Your task to perform on an android device: Empty the shopping cart on walmart. Search for "usb-c to usb-a" on walmart, select the first entry, and add it to the cart. Image 0: 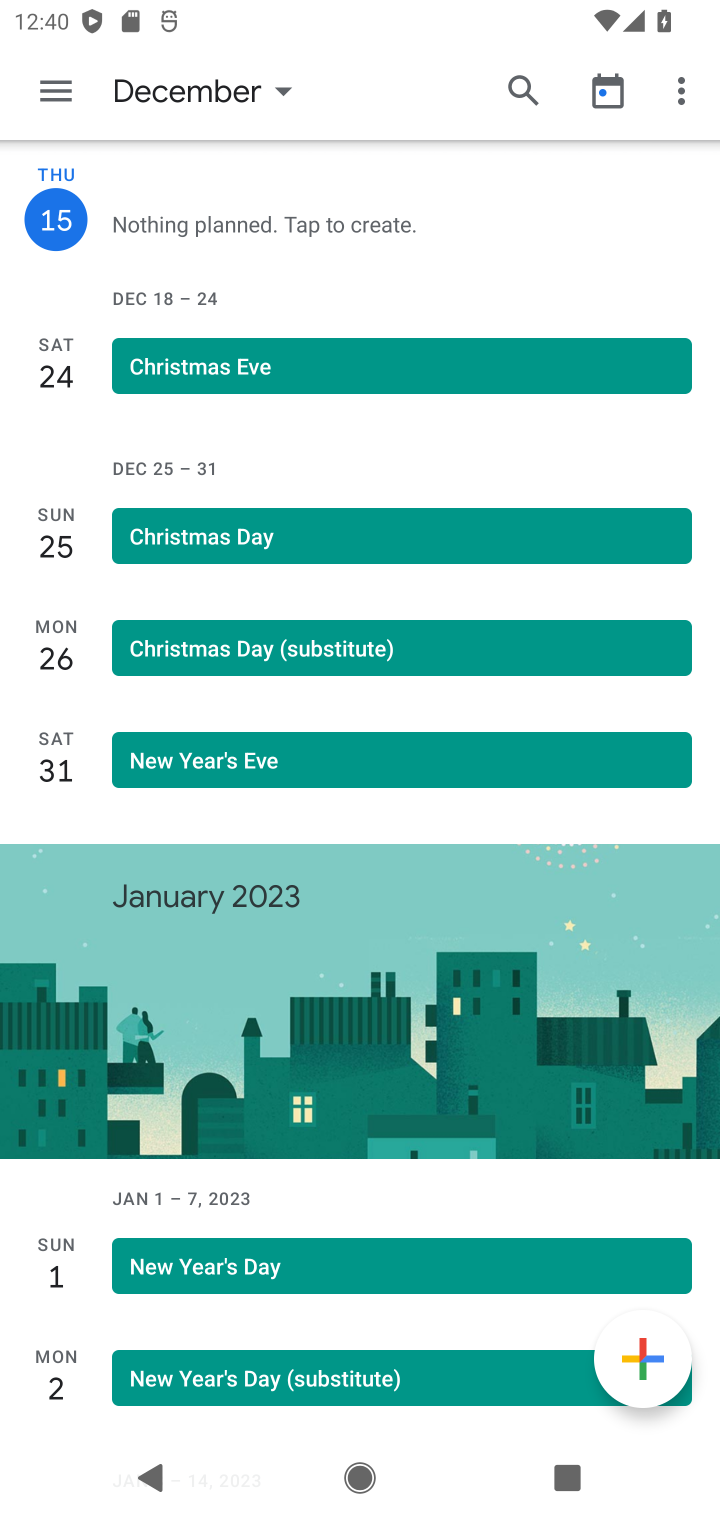
Step 0: task complete